Your task to perform on an android device: See recent photos Image 0: 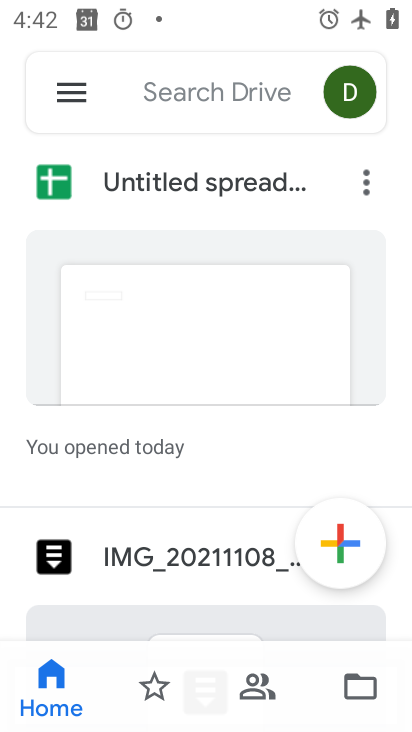
Step 0: press home button
Your task to perform on an android device: See recent photos Image 1: 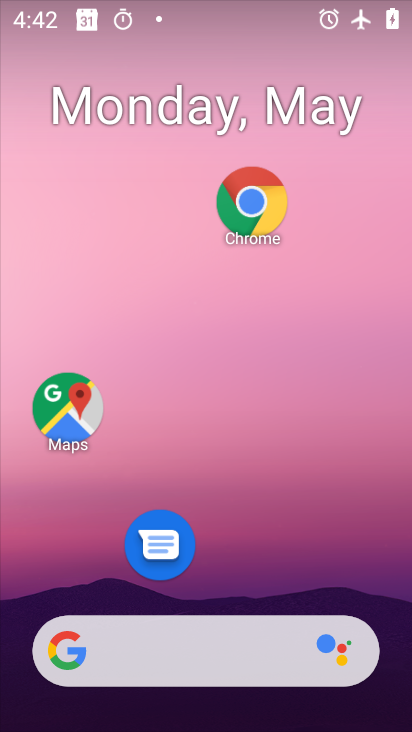
Step 1: drag from (226, 582) to (250, 136)
Your task to perform on an android device: See recent photos Image 2: 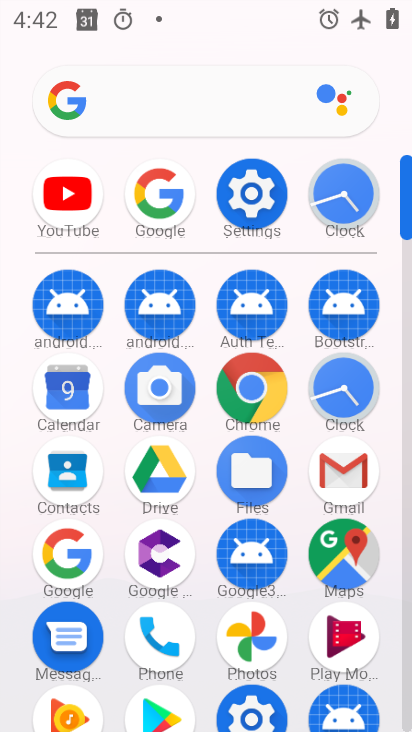
Step 2: drag from (196, 594) to (220, 355)
Your task to perform on an android device: See recent photos Image 3: 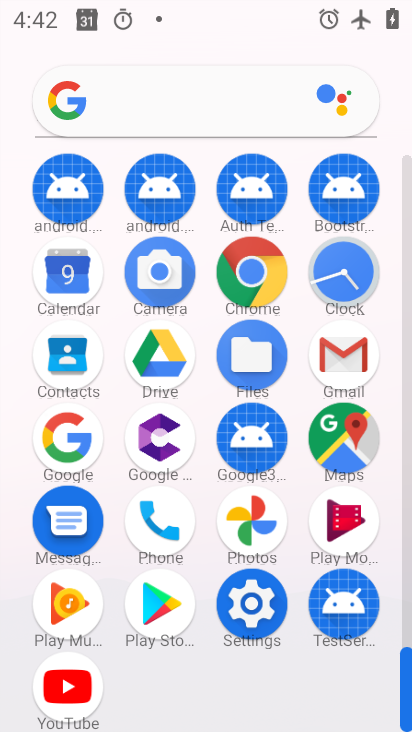
Step 3: click (269, 513)
Your task to perform on an android device: See recent photos Image 4: 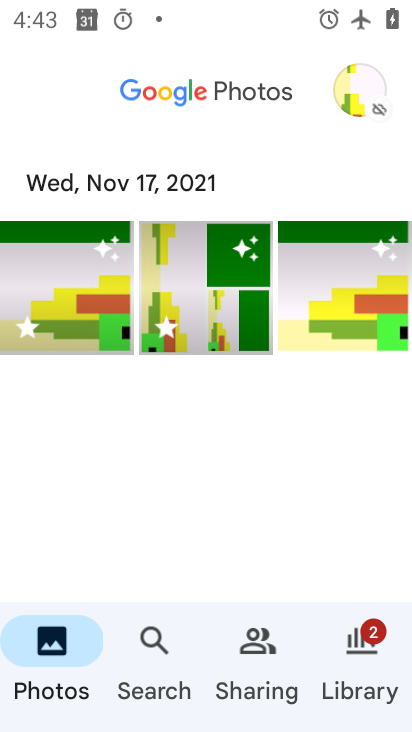
Step 4: task complete